Your task to perform on an android device: open a bookmark in the chrome app Image 0: 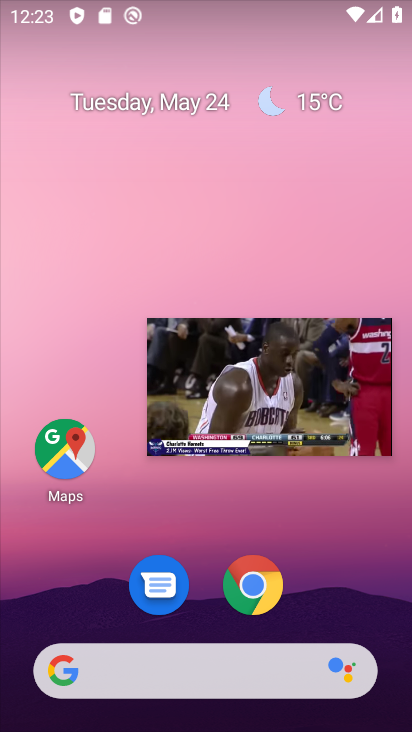
Step 0: click (268, 576)
Your task to perform on an android device: open a bookmark in the chrome app Image 1: 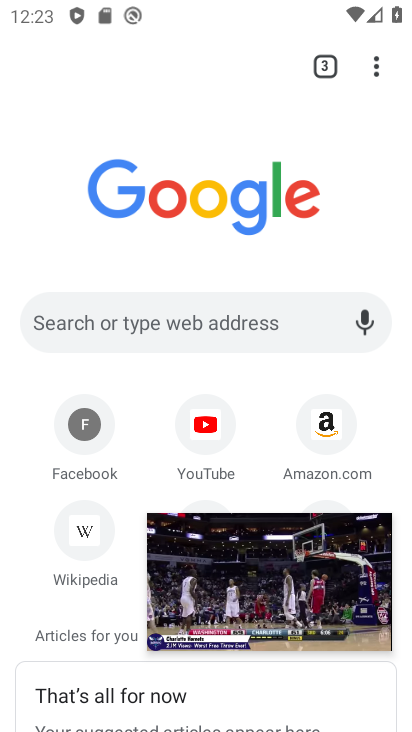
Step 1: click (378, 68)
Your task to perform on an android device: open a bookmark in the chrome app Image 2: 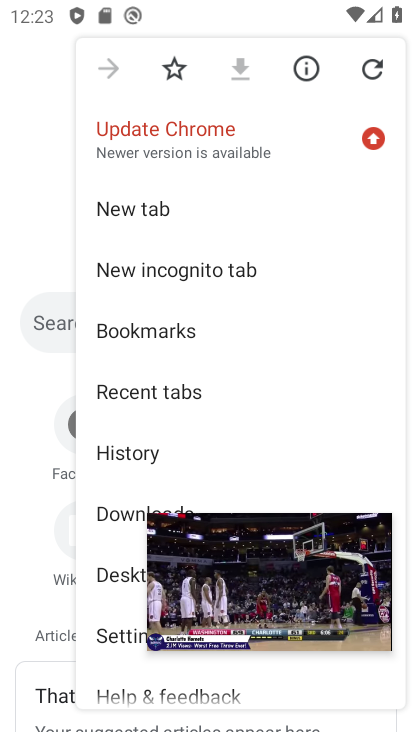
Step 2: click (184, 327)
Your task to perform on an android device: open a bookmark in the chrome app Image 3: 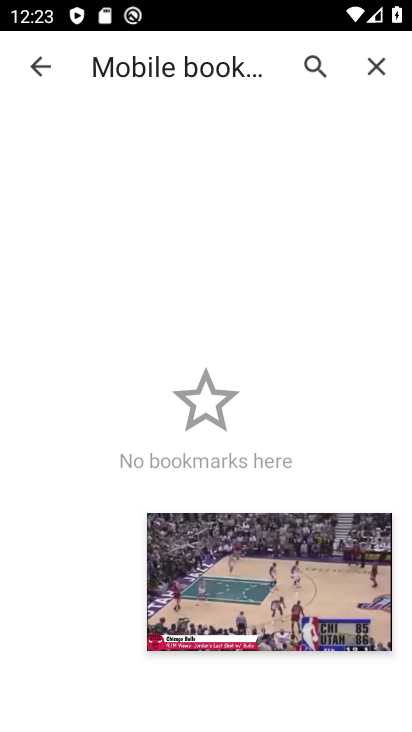
Step 3: task complete